Your task to perform on an android device: Go to display settings Image 0: 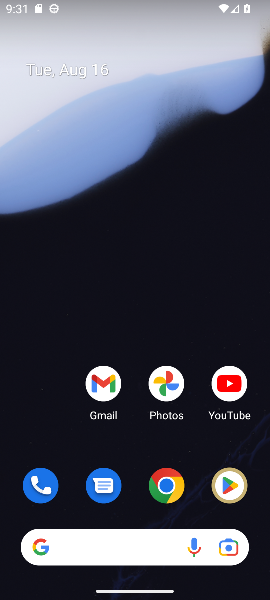
Step 0: drag from (176, 448) to (150, 116)
Your task to perform on an android device: Go to display settings Image 1: 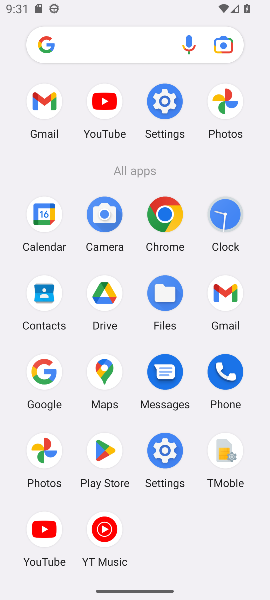
Step 1: click (168, 451)
Your task to perform on an android device: Go to display settings Image 2: 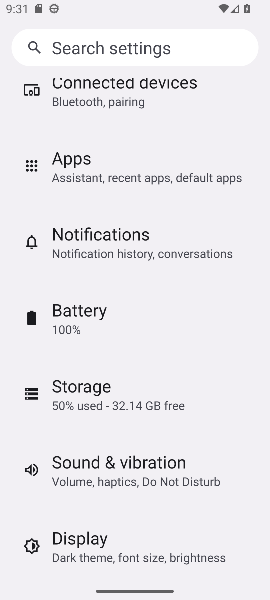
Step 2: click (122, 548)
Your task to perform on an android device: Go to display settings Image 3: 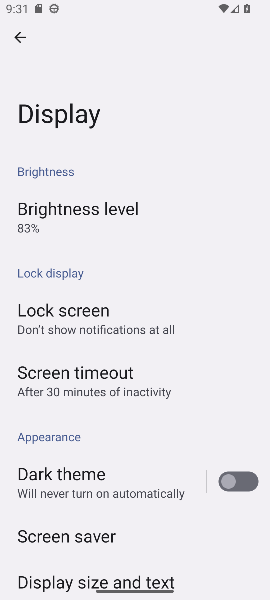
Step 3: task complete